Your task to perform on an android device: Play the last video I watched on Youtube Image 0: 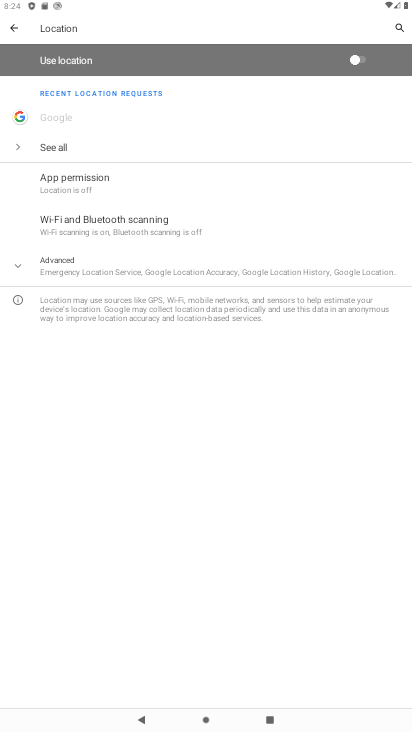
Step 0: press home button
Your task to perform on an android device: Play the last video I watched on Youtube Image 1: 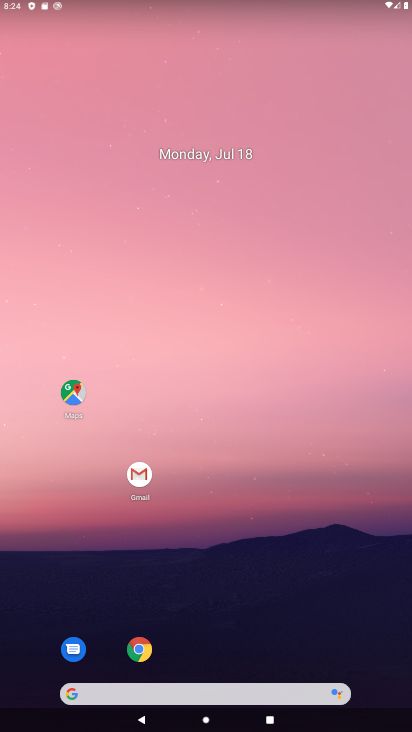
Step 1: drag from (313, 544) to (302, 84)
Your task to perform on an android device: Play the last video I watched on Youtube Image 2: 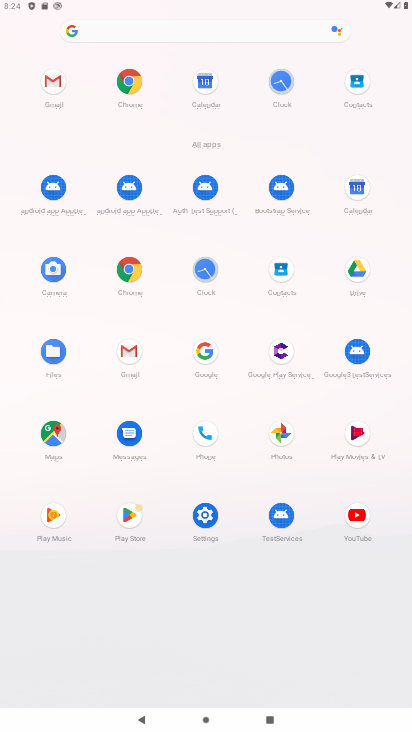
Step 2: click (353, 517)
Your task to perform on an android device: Play the last video I watched on Youtube Image 3: 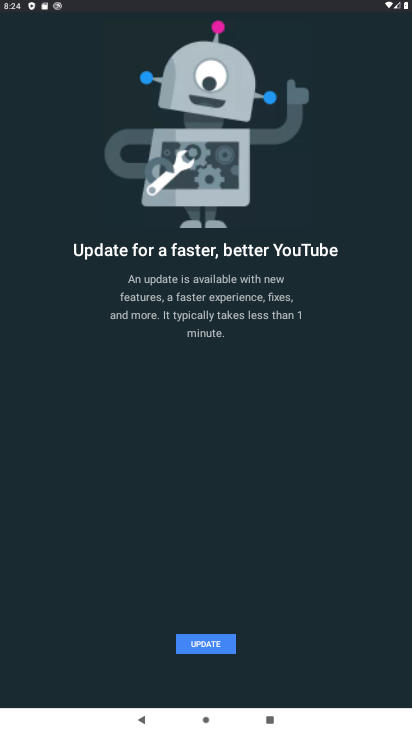
Step 3: task complete